Your task to perform on an android device: Open Youtube and go to the subscriptions tab Image 0: 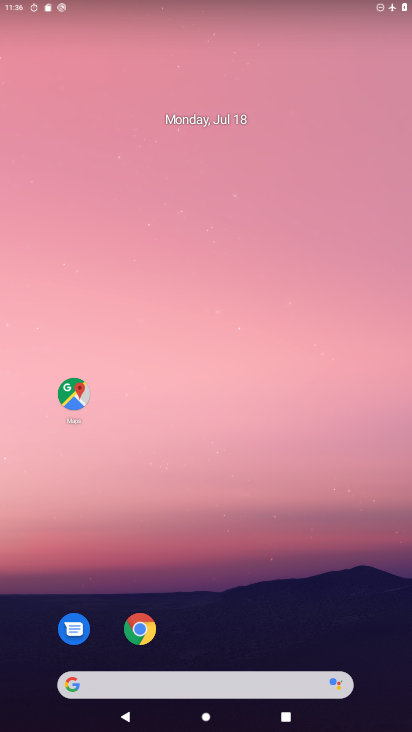
Step 0: drag from (284, 618) to (267, 126)
Your task to perform on an android device: Open Youtube and go to the subscriptions tab Image 1: 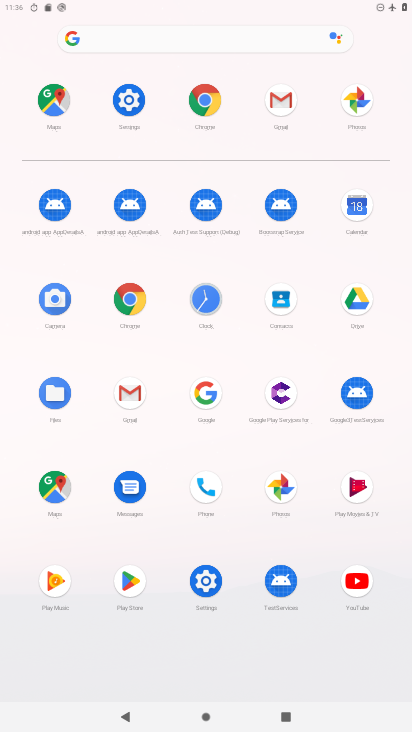
Step 1: click (360, 580)
Your task to perform on an android device: Open Youtube and go to the subscriptions tab Image 2: 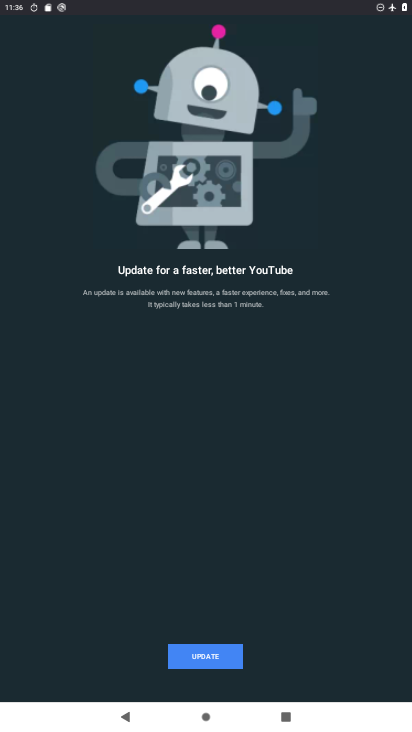
Step 2: task complete